Your task to perform on an android device: change notification settings in the gmail app Image 0: 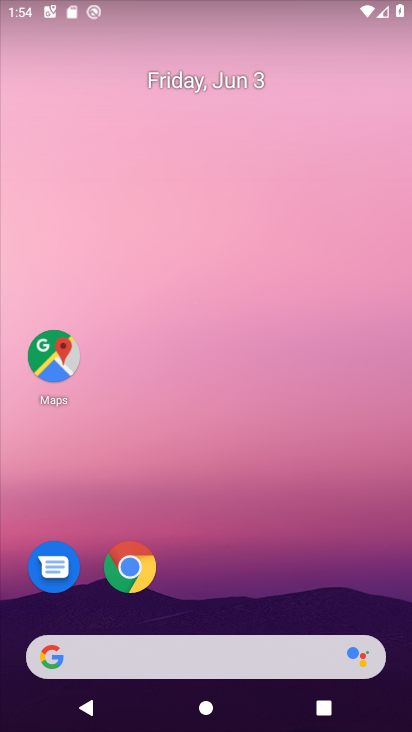
Step 0: drag from (214, 484) to (239, 214)
Your task to perform on an android device: change notification settings in the gmail app Image 1: 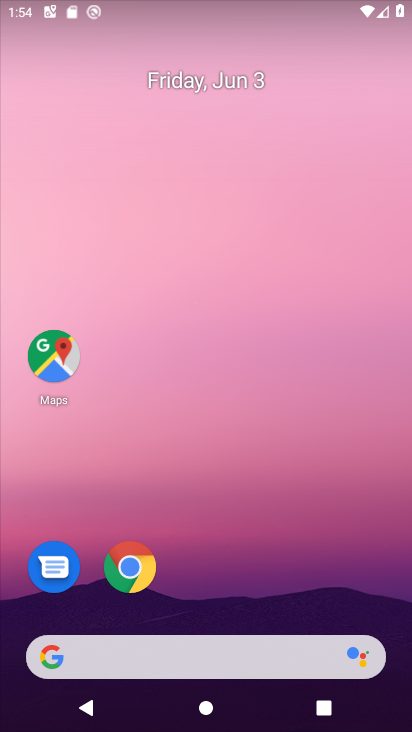
Step 1: drag from (289, 600) to (274, 174)
Your task to perform on an android device: change notification settings in the gmail app Image 2: 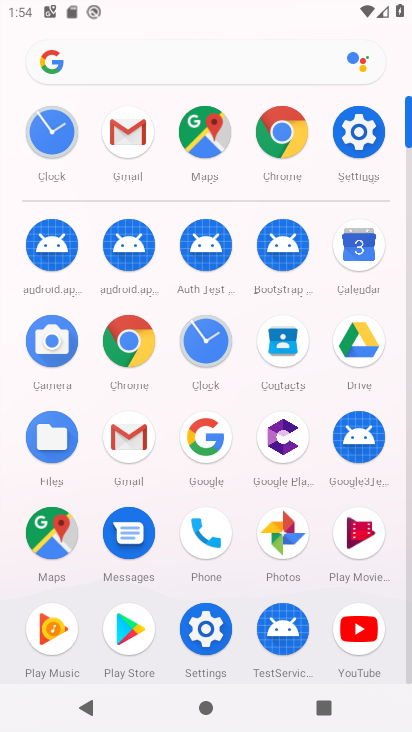
Step 2: click (129, 438)
Your task to perform on an android device: change notification settings in the gmail app Image 3: 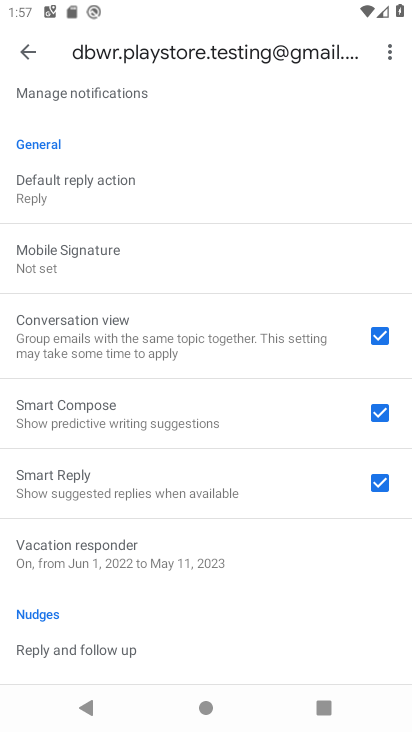
Step 3: task complete